Your task to perform on an android device: toggle pop-ups in chrome Image 0: 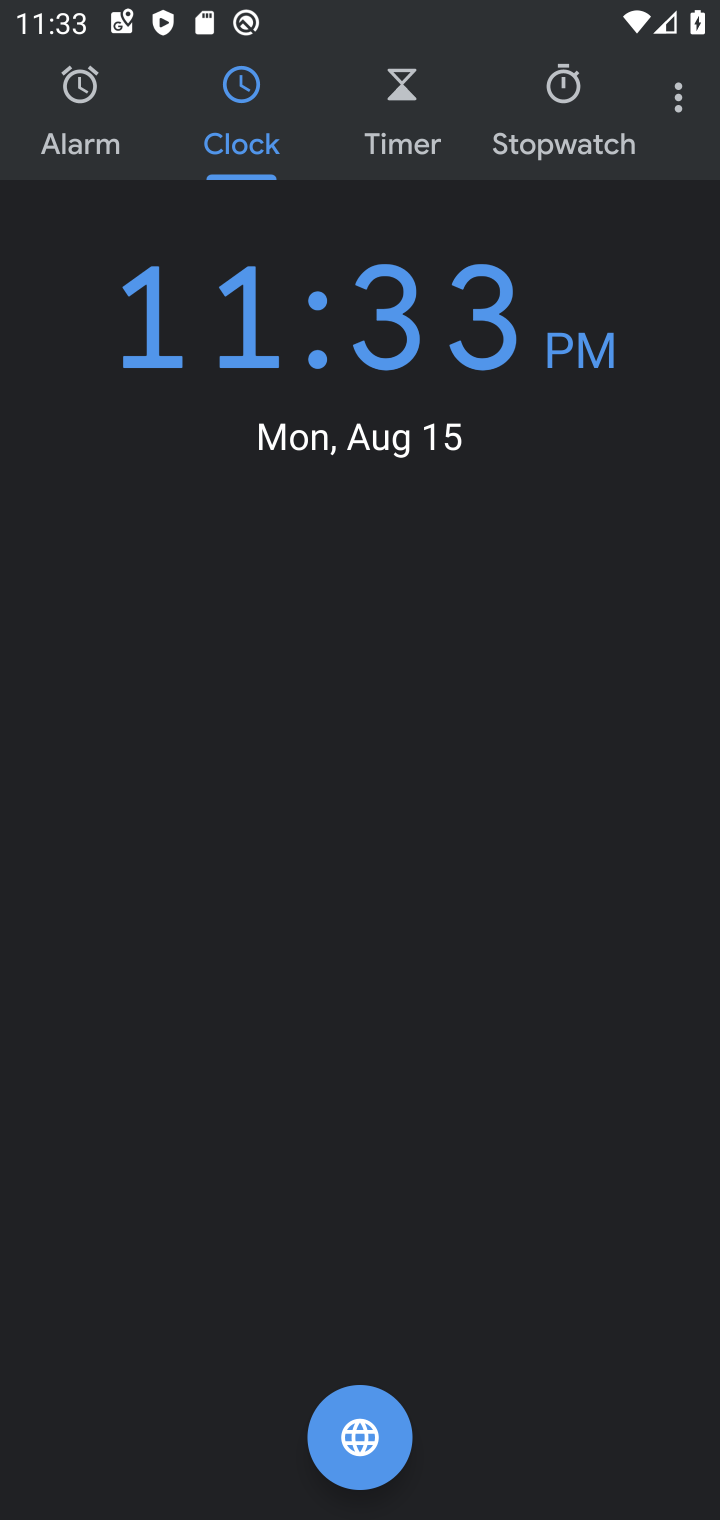
Step 0: press home button
Your task to perform on an android device: toggle pop-ups in chrome Image 1: 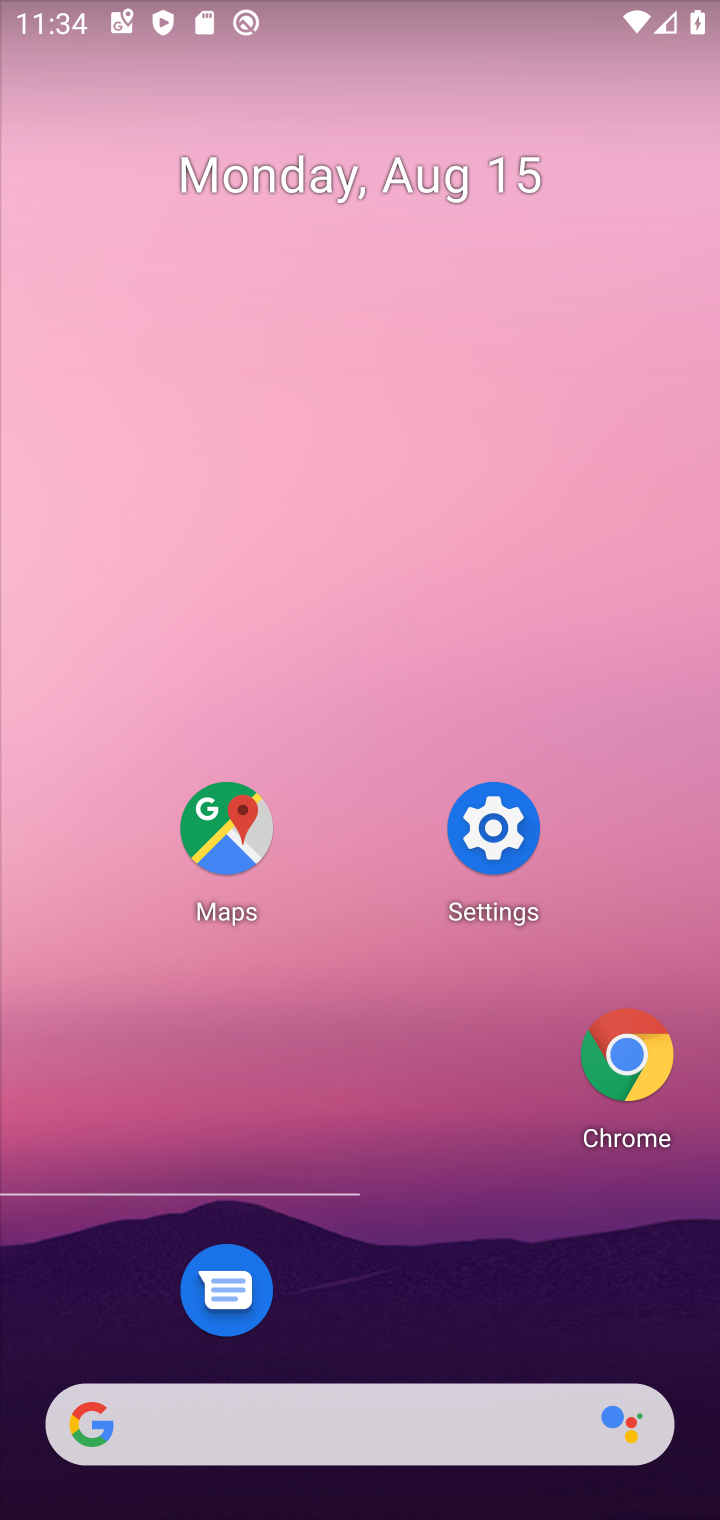
Step 1: click (621, 1048)
Your task to perform on an android device: toggle pop-ups in chrome Image 2: 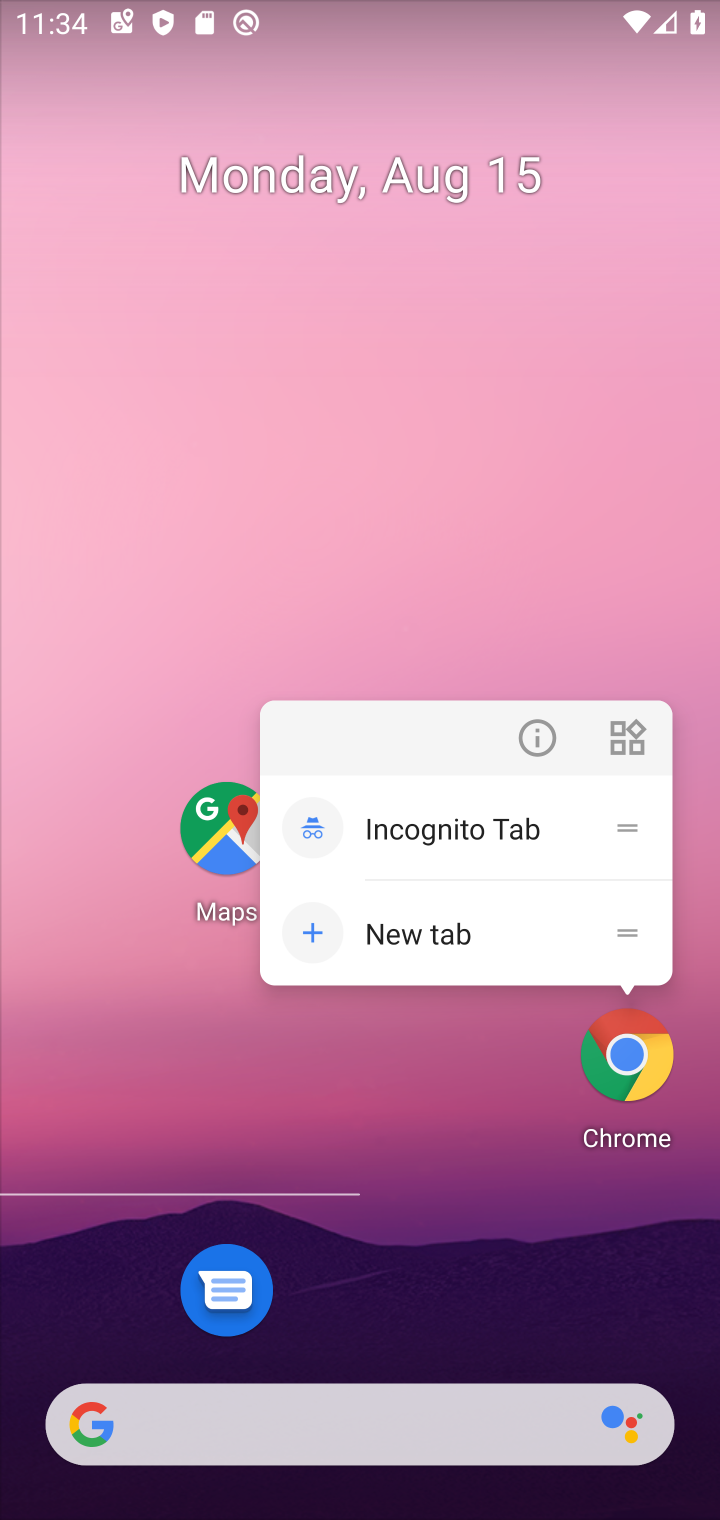
Step 2: click (621, 1053)
Your task to perform on an android device: toggle pop-ups in chrome Image 3: 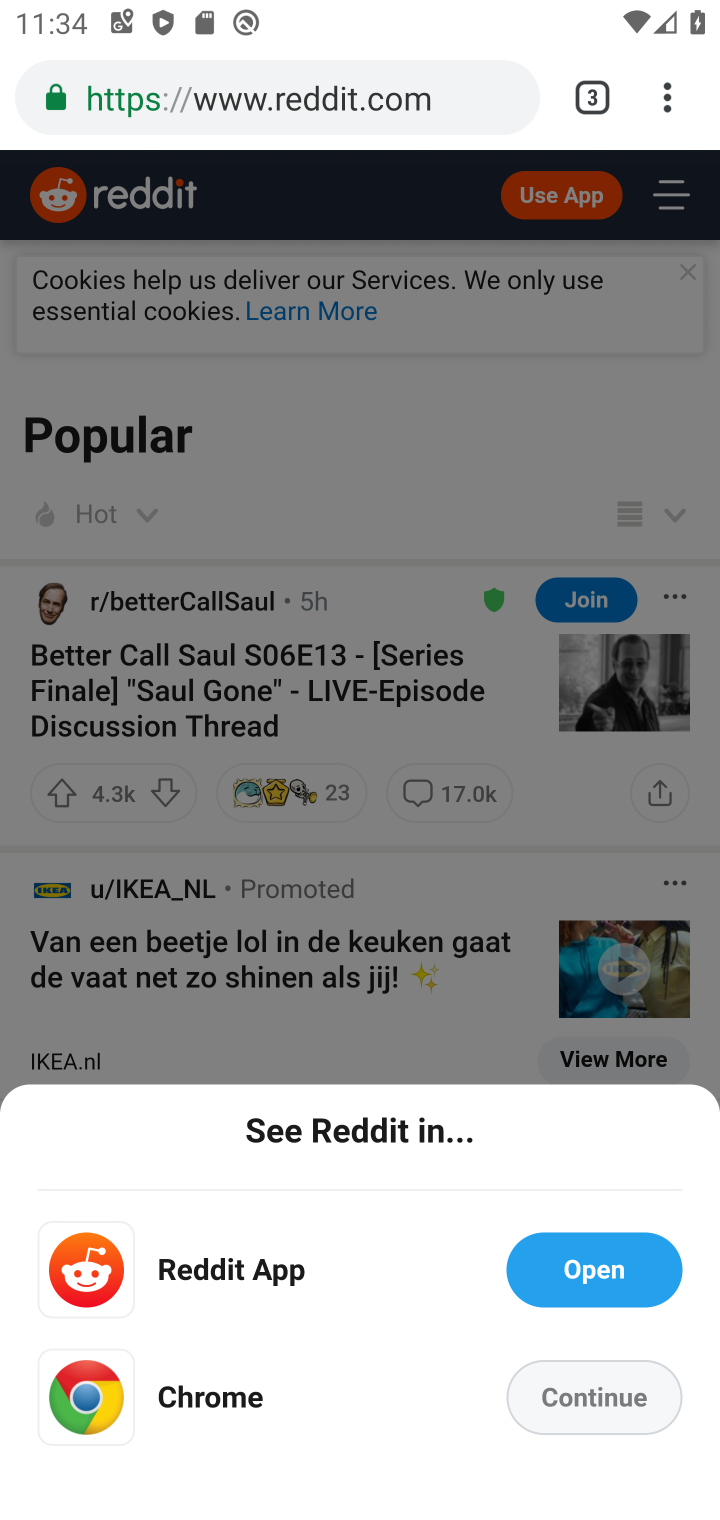
Step 3: drag from (659, 94) to (390, 1175)
Your task to perform on an android device: toggle pop-ups in chrome Image 4: 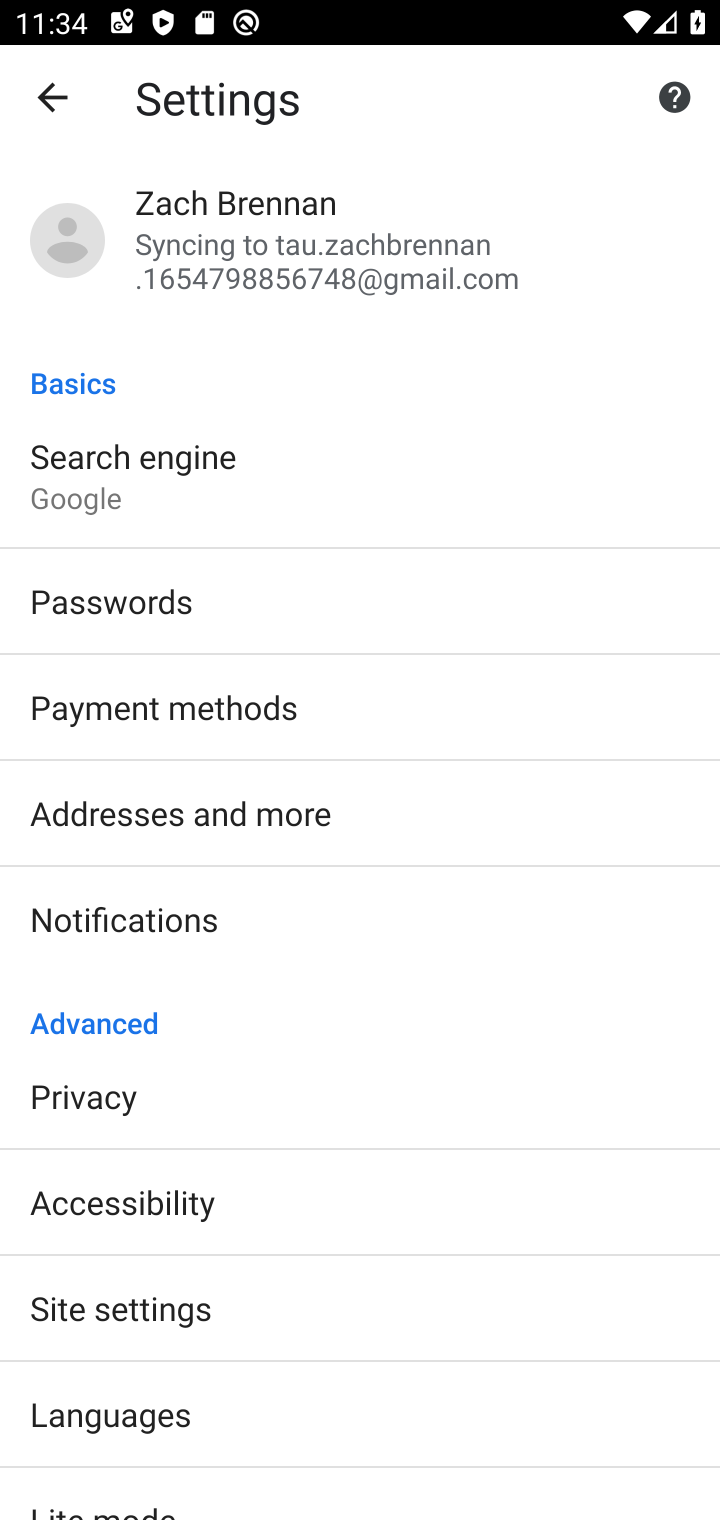
Step 4: click (199, 1301)
Your task to perform on an android device: toggle pop-ups in chrome Image 5: 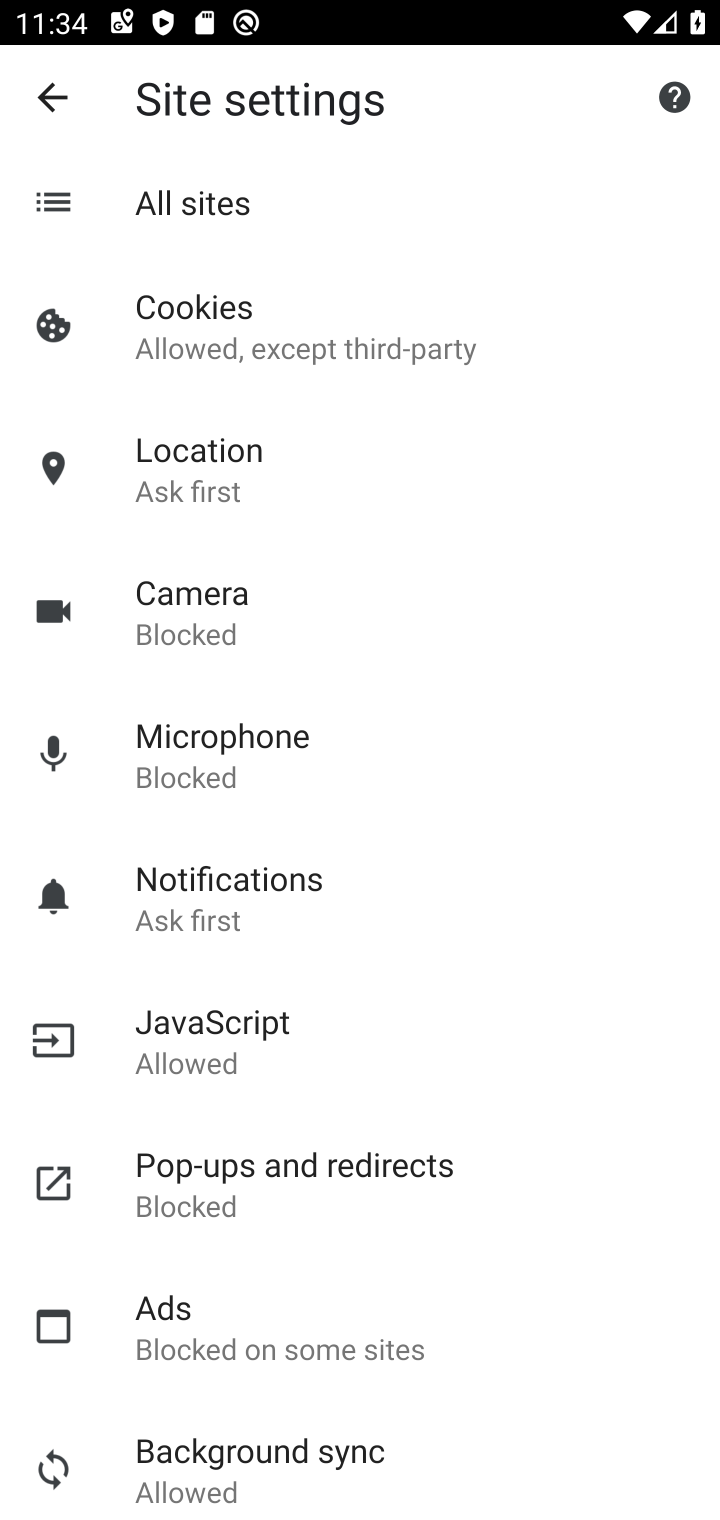
Step 5: click (246, 1165)
Your task to perform on an android device: toggle pop-ups in chrome Image 6: 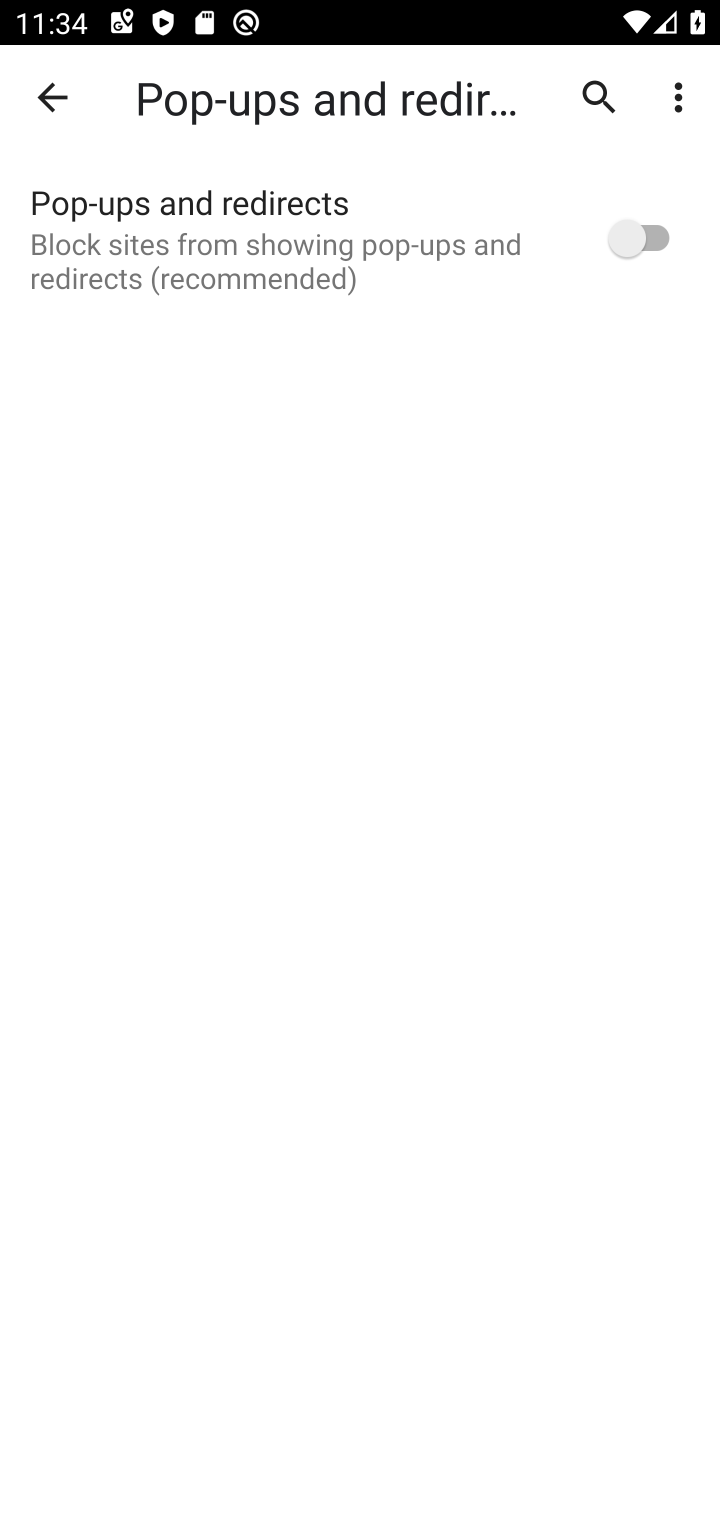
Step 6: click (650, 228)
Your task to perform on an android device: toggle pop-ups in chrome Image 7: 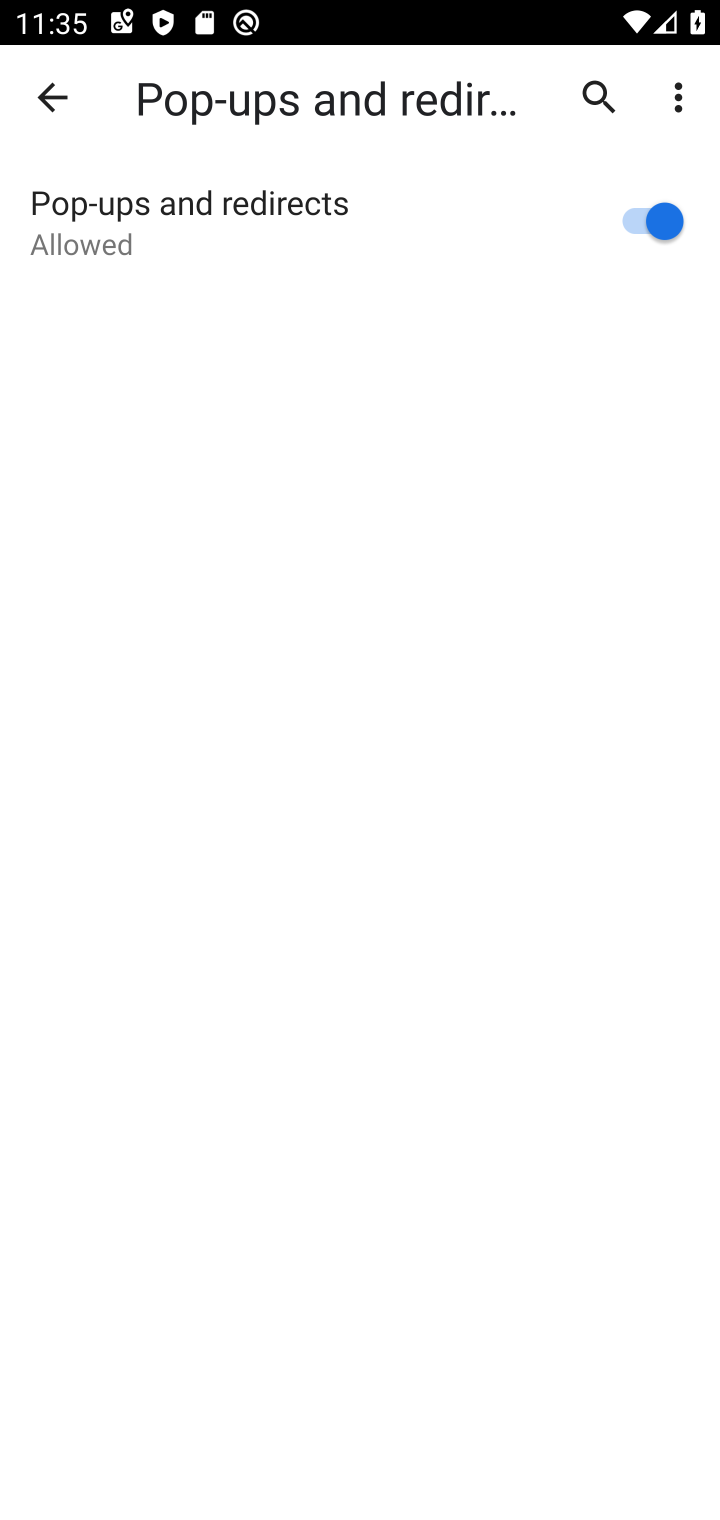
Step 7: task complete